Your task to perform on an android device: open chrome and create a bookmark for the current page Image 0: 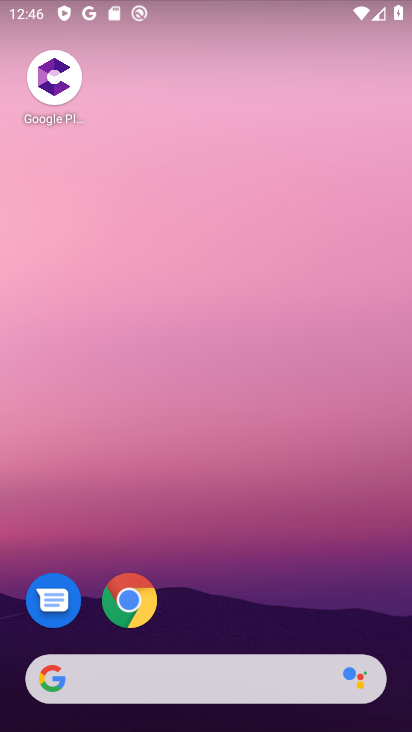
Step 0: click (120, 596)
Your task to perform on an android device: open chrome and create a bookmark for the current page Image 1: 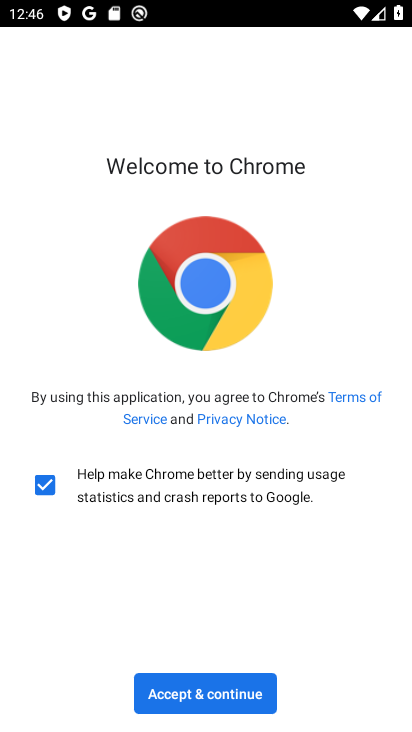
Step 1: click (205, 686)
Your task to perform on an android device: open chrome and create a bookmark for the current page Image 2: 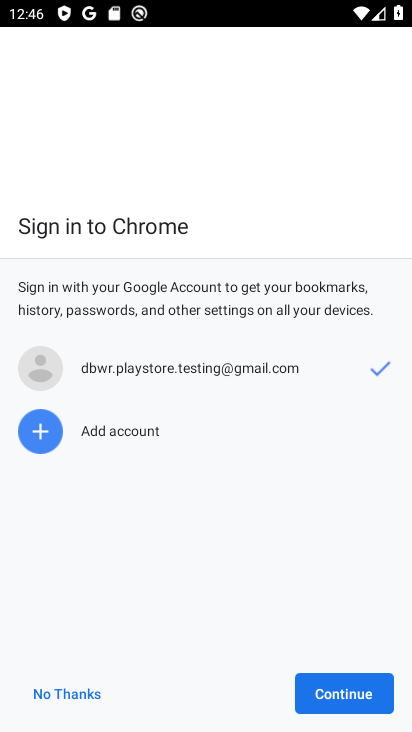
Step 2: click (371, 698)
Your task to perform on an android device: open chrome and create a bookmark for the current page Image 3: 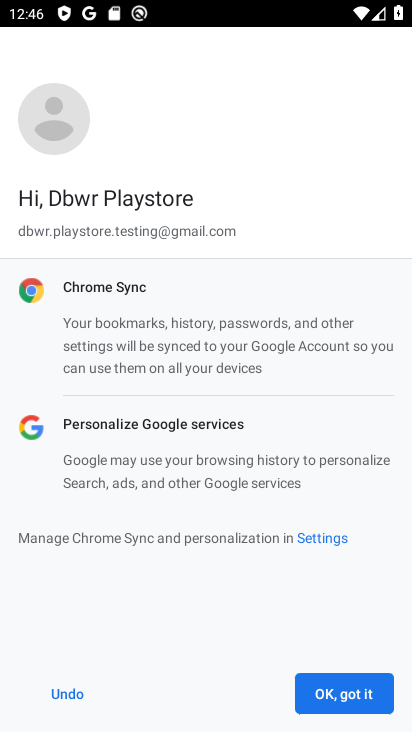
Step 3: click (354, 694)
Your task to perform on an android device: open chrome and create a bookmark for the current page Image 4: 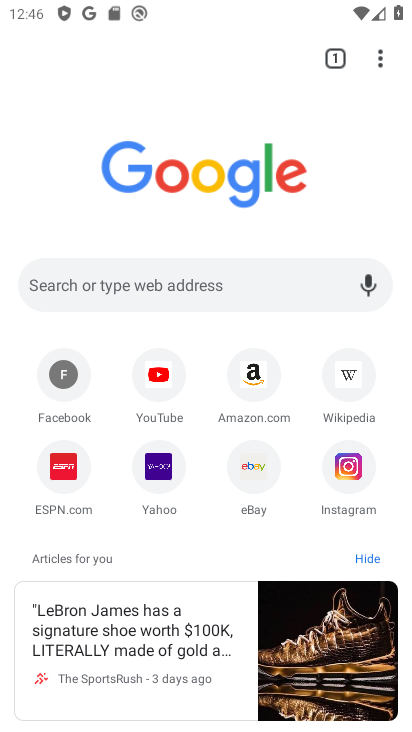
Step 4: click (379, 58)
Your task to perform on an android device: open chrome and create a bookmark for the current page Image 5: 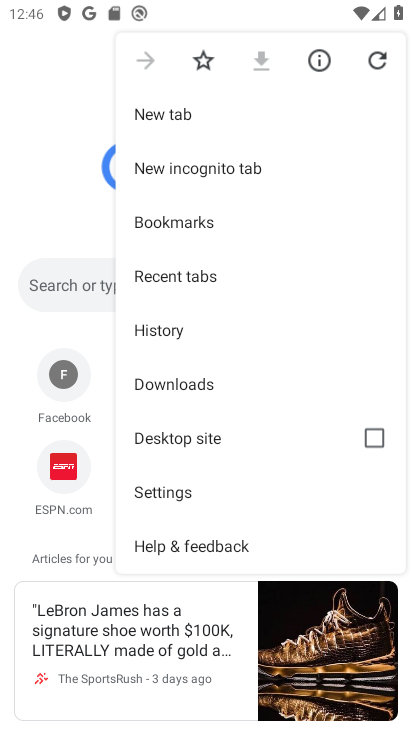
Step 5: click (208, 58)
Your task to perform on an android device: open chrome and create a bookmark for the current page Image 6: 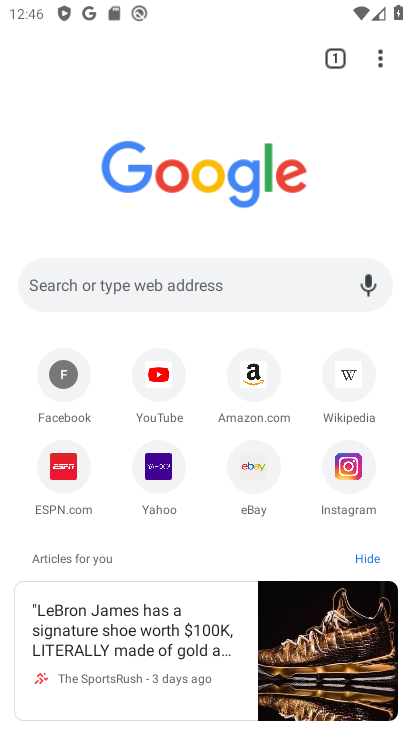
Step 6: task complete